Your task to perform on an android device: turn notification dots off Image 0: 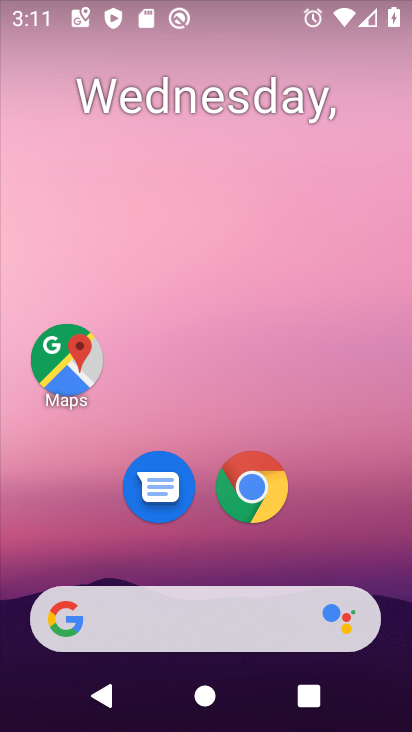
Step 0: drag from (375, 540) to (364, 239)
Your task to perform on an android device: turn notification dots off Image 1: 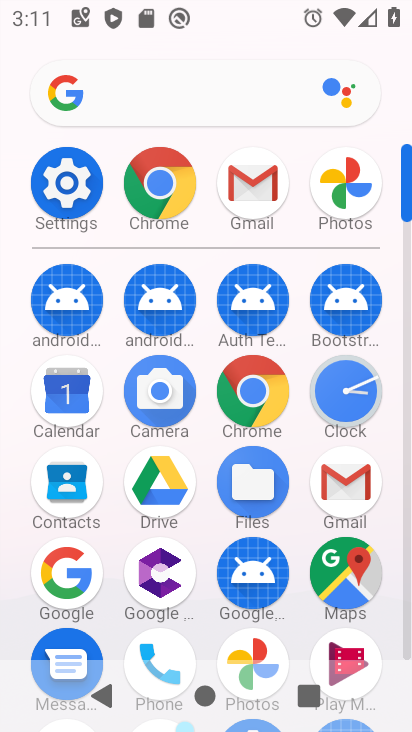
Step 1: click (46, 207)
Your task to perform on an android device: turn notification dots off Image 2: 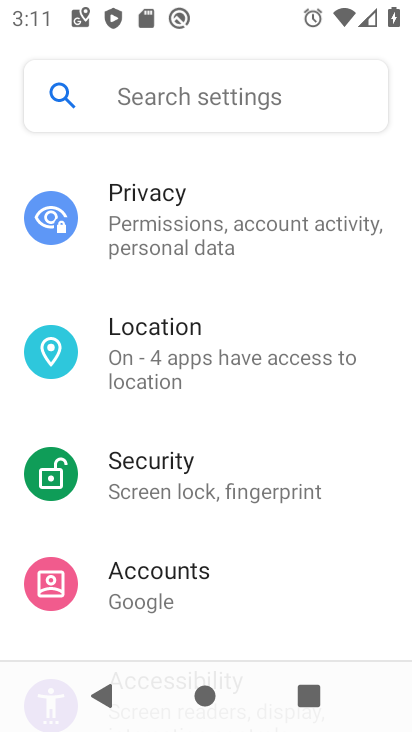
Step 2: drag from (359, 306) to (359, 416)
Your task to perform on an android device: turn notification dots off Image 3: 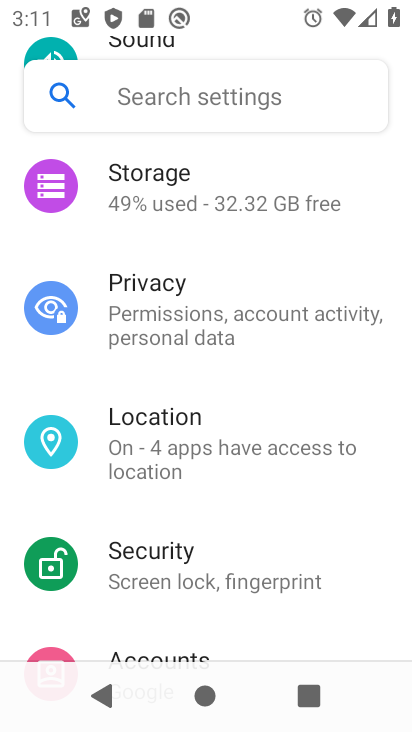
Step 3: drag from (367, 335) to (365, 461)
Your task to perform on an android device: turn notification dots off Image 4: 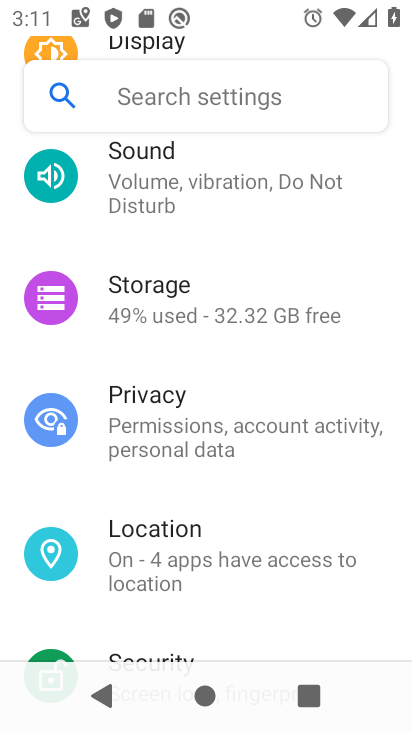
Step 4: drag from (370, 341) to (369, 398)
Your task to perform on an android device: turn notification dots off Image 5: 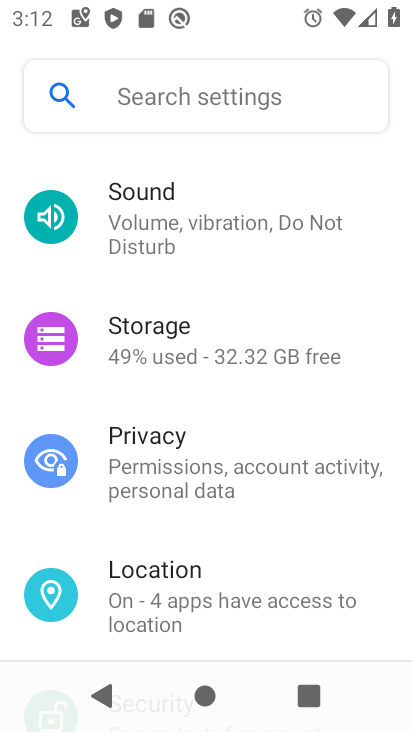
Step 5: drag from (379, 328) to (377, 452)
Your task to perform on an android device: turn notification dots off Image 6: 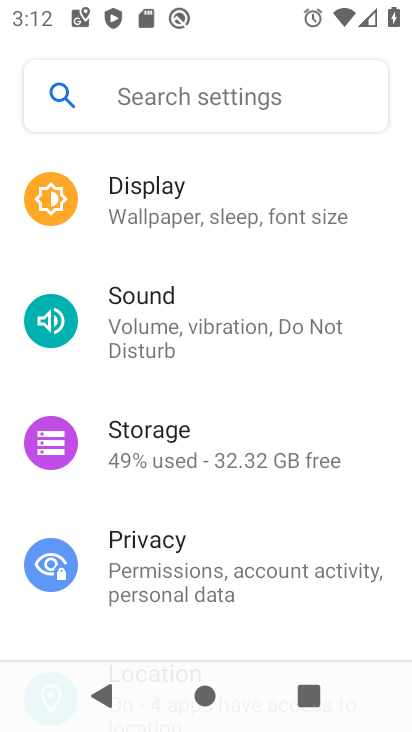
Step 6: drag from (373, 351) to (378, 458)
Your task to perform on an android device: turn notification dots off Image 7: 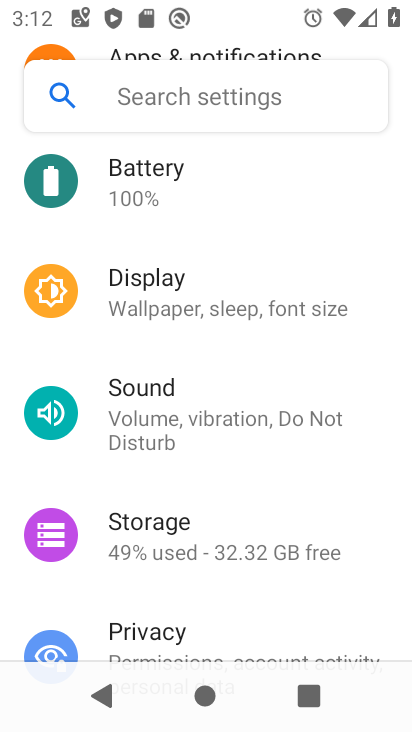
Step 7: drag from (377, 328) to (380, 462)
Your task to perform on an android device: turn notification dots off Image 8: 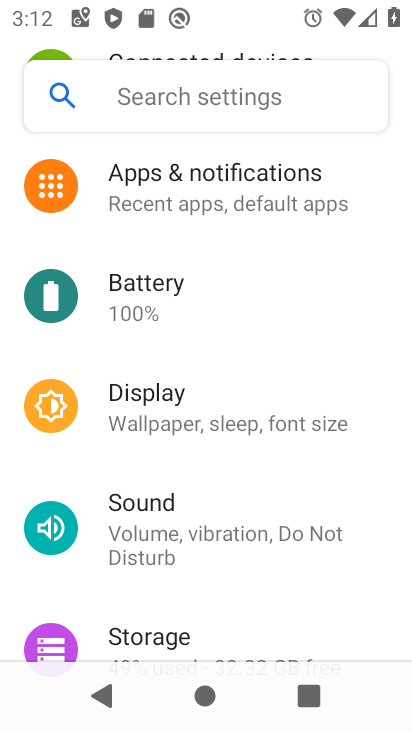
Step 8: drag from (379, 320) to (383, 425)
Your task to perform on an android device: turn notification dots off Image 9: 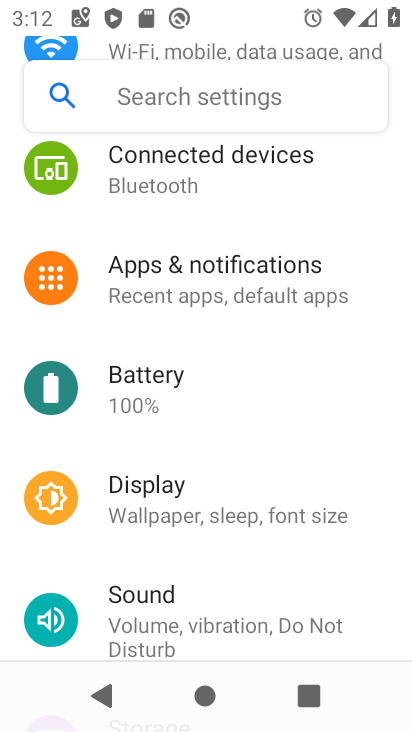
Step 9: drag from (377, 297) to (384, 398)
Your task to perform on an android device: turn notification dots off Image 10: 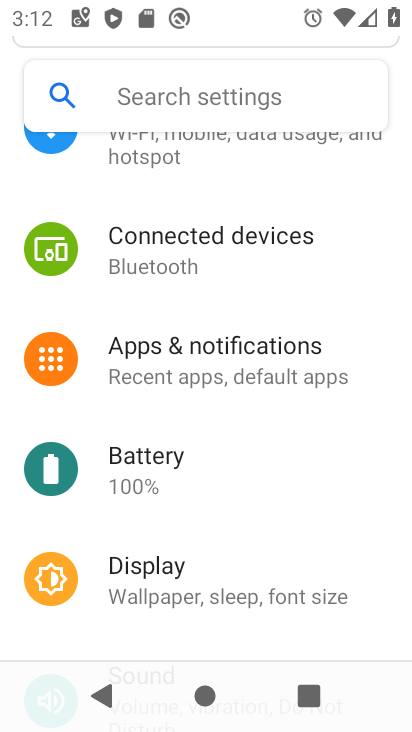
Step 10: click (318, 357)
Your task to perform on an android device: turn notification dots off Image 11: 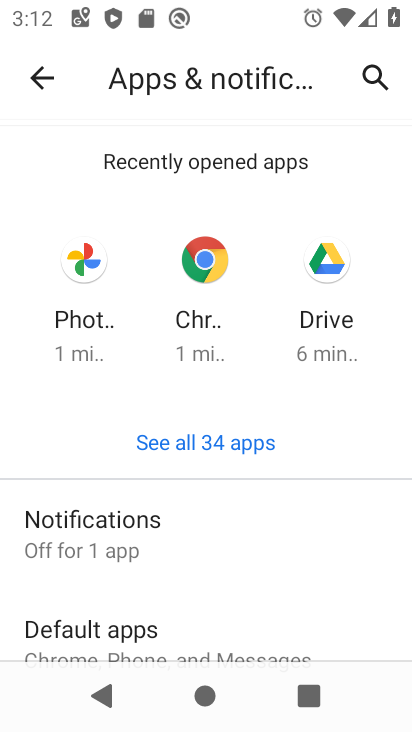
Step 11: click (186, 548)
Your task to perform on an android device: turn notification dots off Image 12: 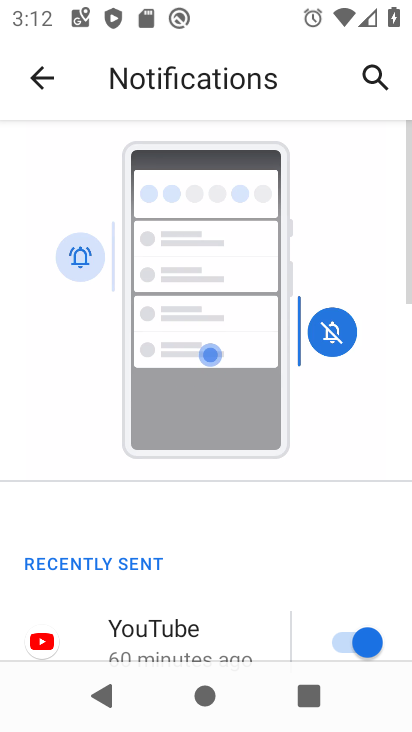
Step 12: drag from (273, 527) to (291, 380)
Your task to perform on an android device: turn notification dots off Image 13: 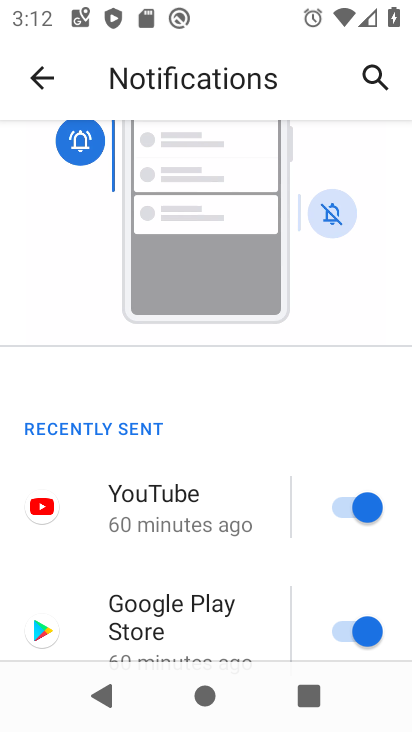
Step 13: drag from (267, 579) to (271, 446)
Your task to perform on an android device: turn notification dots off Image 14: 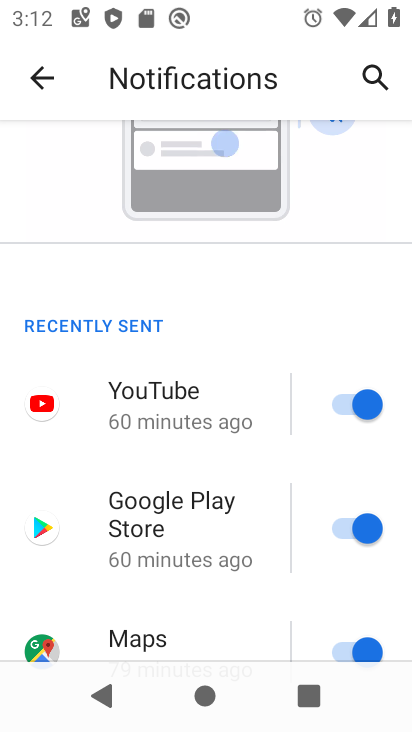
Step 14: drag from (271, 583) to (268, 476)
Your task to perform on an android device: turn notification dots off Image 15: 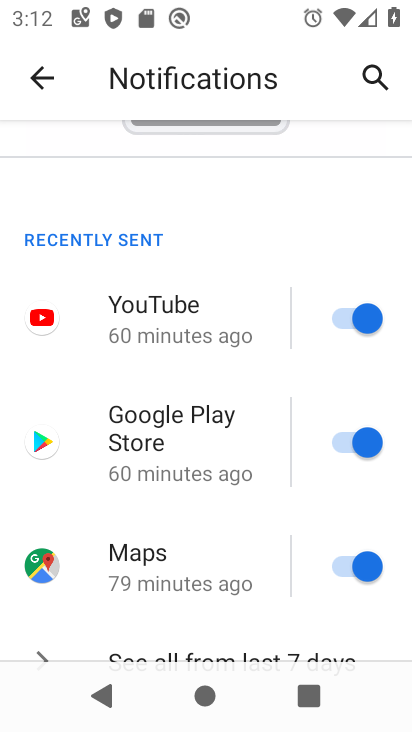
Step 15: drag from (259, 591) to (268, 486)
Your task to perform on an android device: turn notification dots off Image 16: 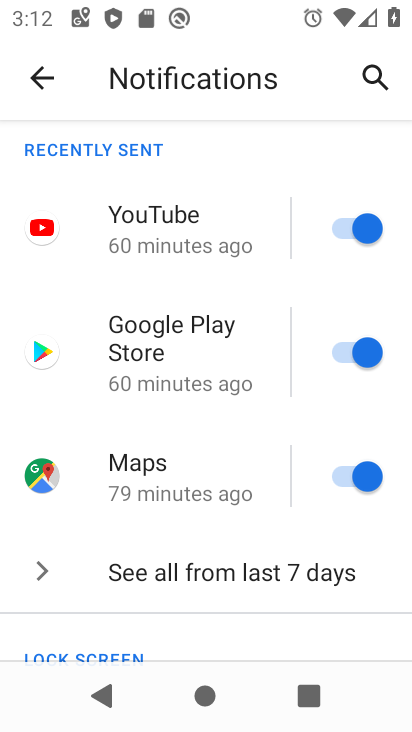
Step 16: drag from (267, 598) to (270, 492)
Your task to perform on an android device: turn notification dots off Image 17: 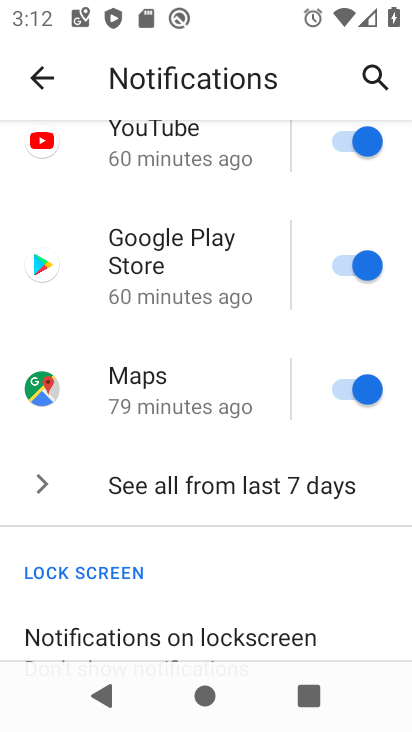
Step 17: drag from (240, 538) to (233, 409)
Your task to perform on an android device: turn notification dots off Image 18: 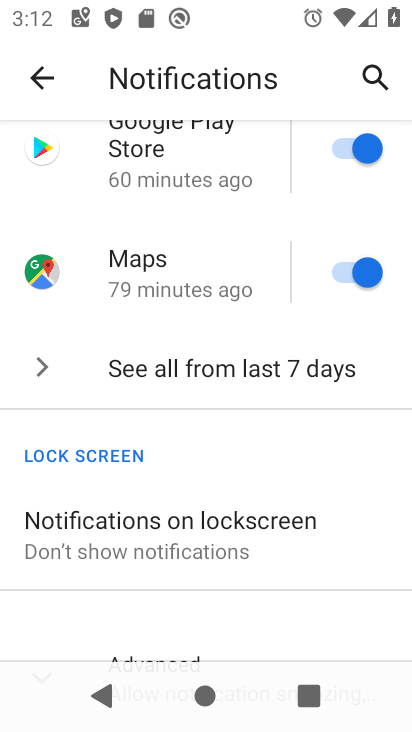
Step 18: drag from (283, 563) to (280, 451)
Your task to perform on an android device: turn notification dots off Image 19: 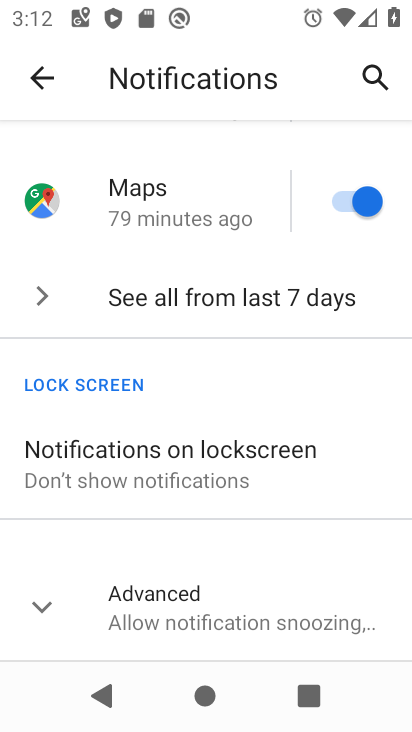
Step 19: click (280, 605)
Your task to perform on an android device: turn notification dots off Image 20: 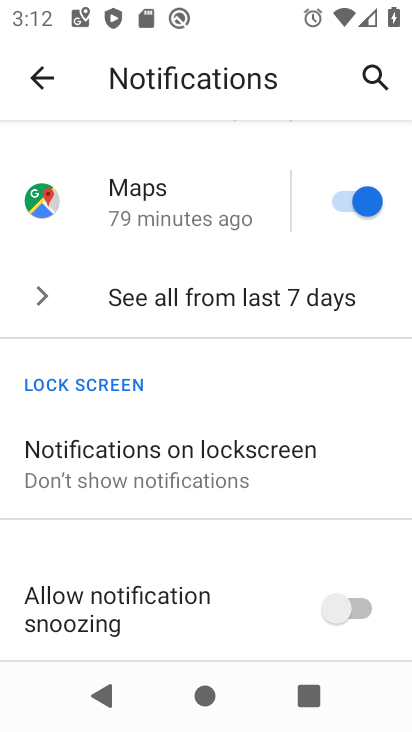
Step 20: drag from (280, 601) to (294, 473)
Your task to perform on an android device: turn notification dots off Image 21: 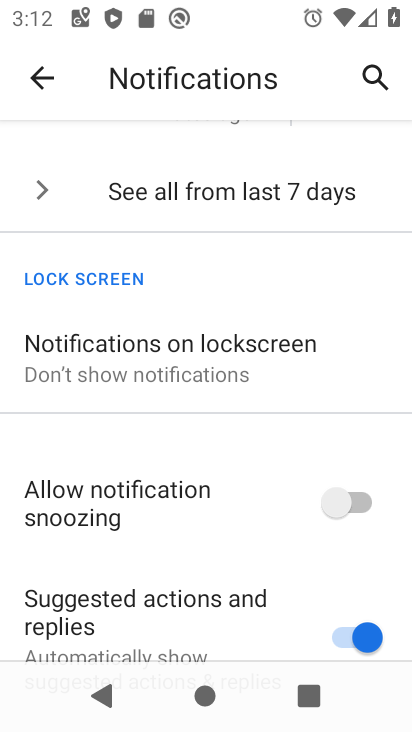
Step 21: drag from (288, 608) to (278, 426)
Your task to perform on an android device: turn notification dots off Image 22: 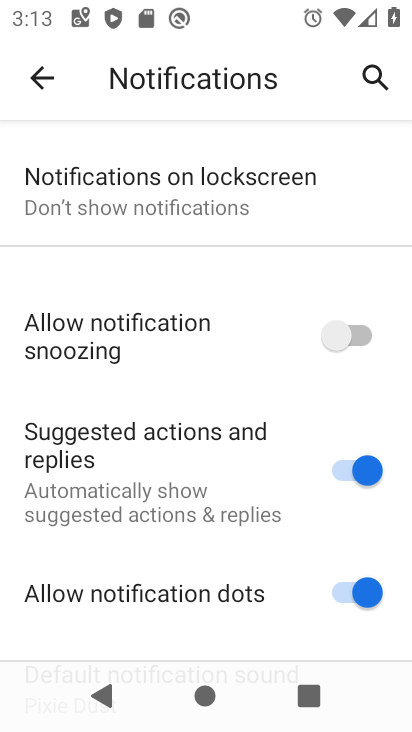
Step 22: click (358, 592)
Your task to perform on an android device: turn notification dots off Image 23: 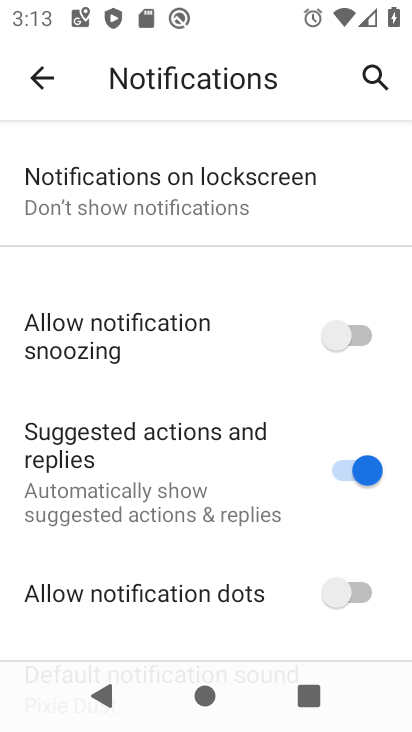
Step 23: task complete